Your task to perform on an android device: toggle location history Image 0: 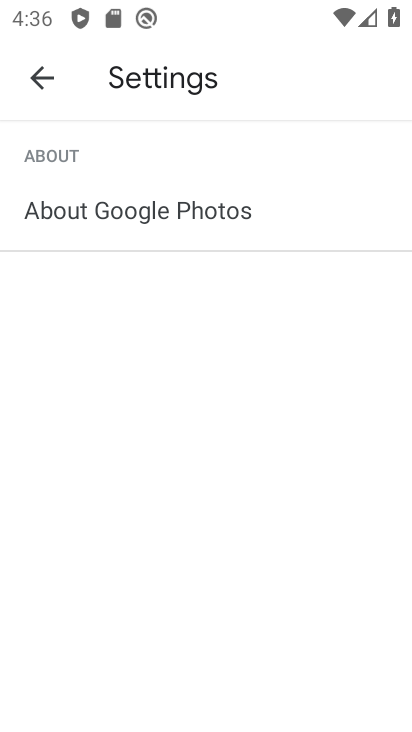
Step 0: press home button
Your task to perform on an android device: toggle location history Image 1: 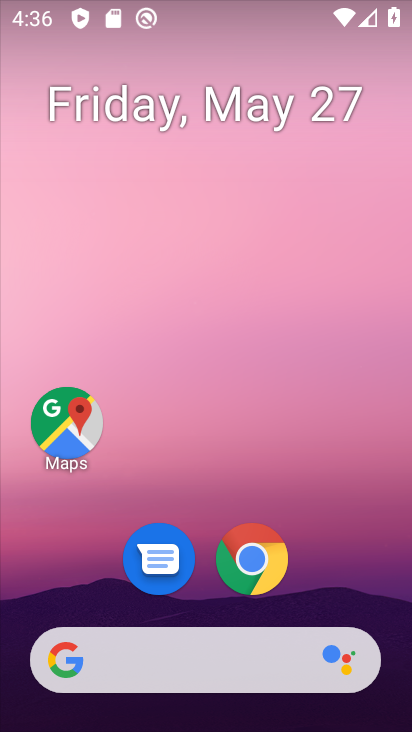
Step 1: drag from (312, 576) to (299, 62)
Your task to perform on an android device: toggle location history Image 2: 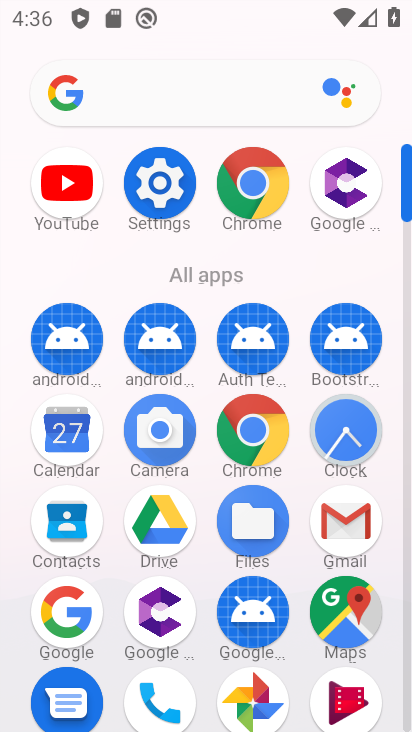
Step 2: click (158, 186)
Your task to perform on an android device: toggle location history Image 3: 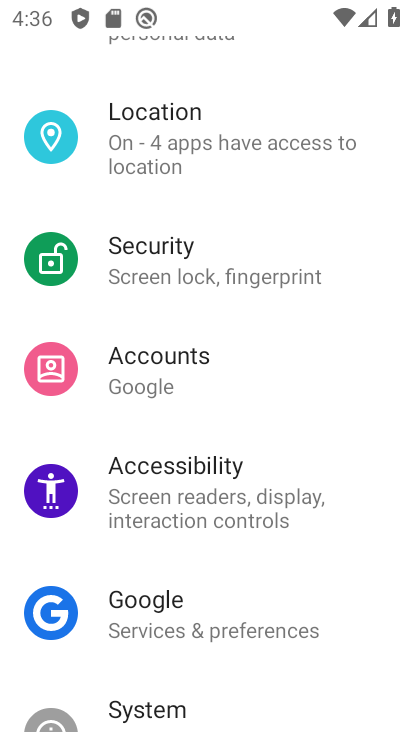
Step 3: press home button
Your task to perform on an android device: toggle location history Image 4: 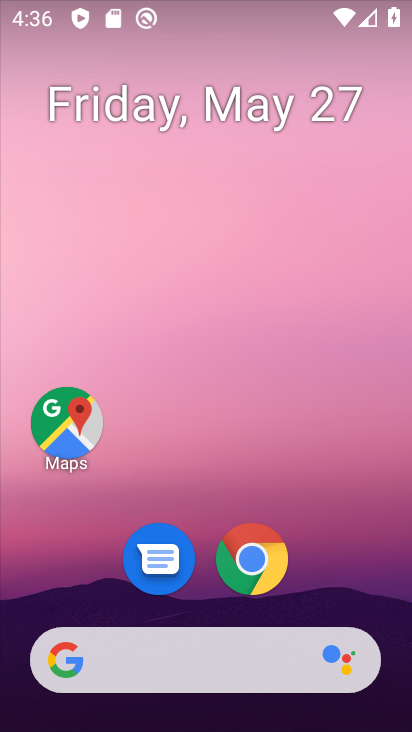
Step 4: click (43, 408)
Your task to perform on an android device: toggle location history Image 5: 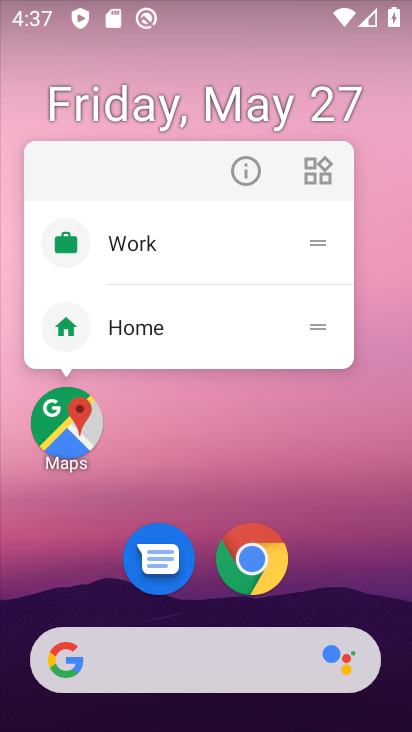
Step 5: click (306, 455)
Your task to perform on an android device: toggle location history Image 6: 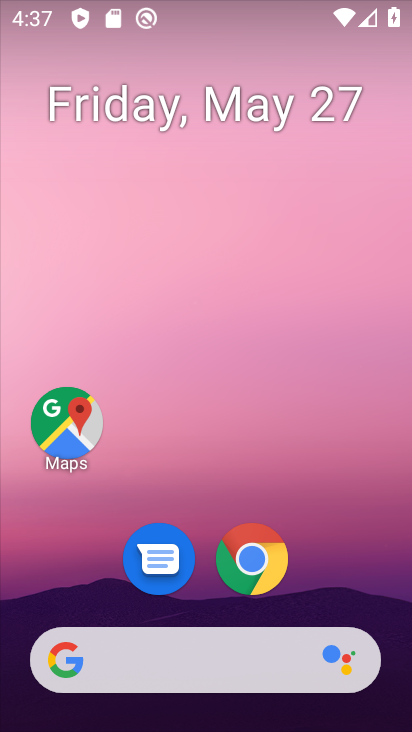
Step 6: drag from (327, 553) to (295, 74)
Your task to perform on an android device: toggle location history Image 7: 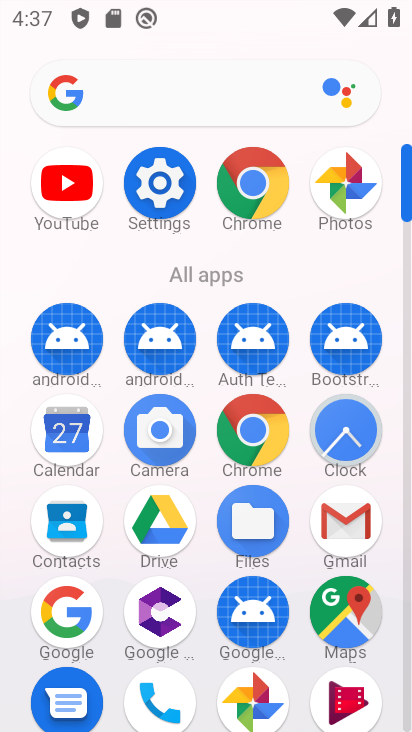
Step 7: click (335, 616)
Your task to perform on an android device: toggle location history Image 8: 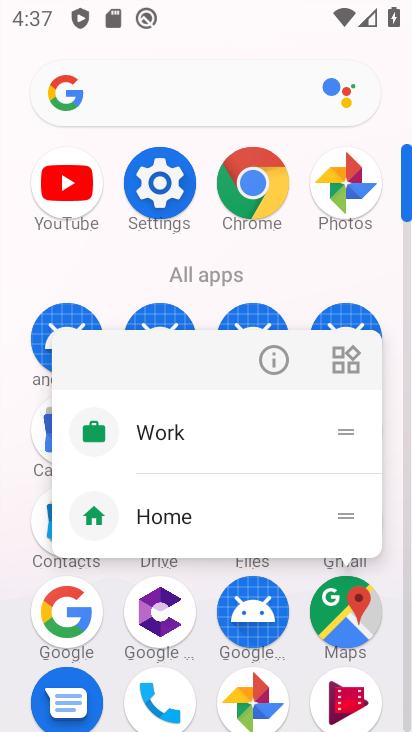
Step 8: click (340, 595)
Your task to perform on an android device: toggle location history Image 9: 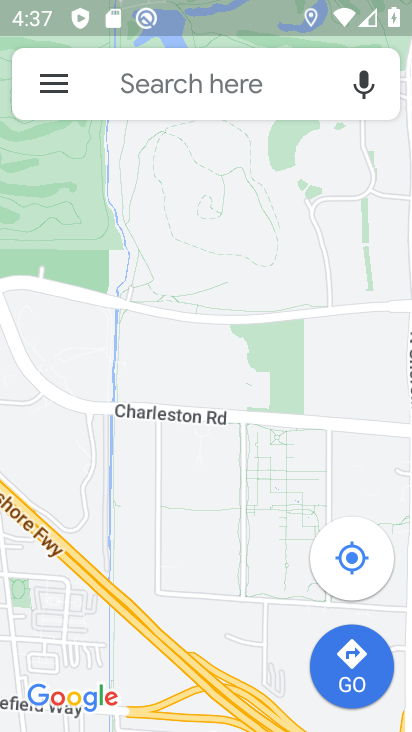
Step 9: click (51, 88)
Your task to perform on an android device: toggle location history Image 10: 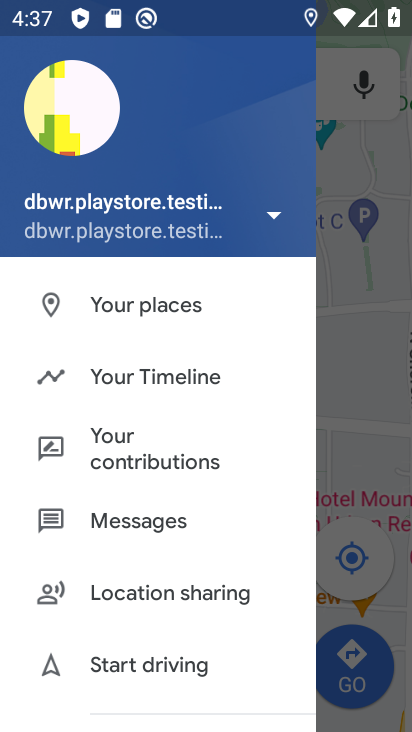
Step 10: click (153, 380)
Your task to perform on an android device: toggle location history Image 11: 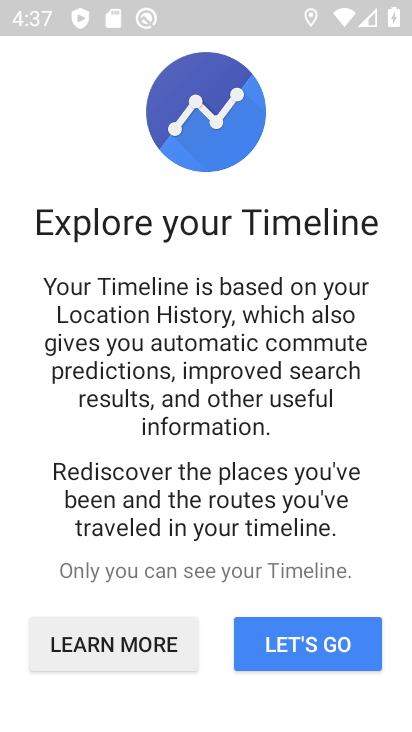
Step 11: click (307, 650)
Your task to perform on an android device: toggle location history Image 12: 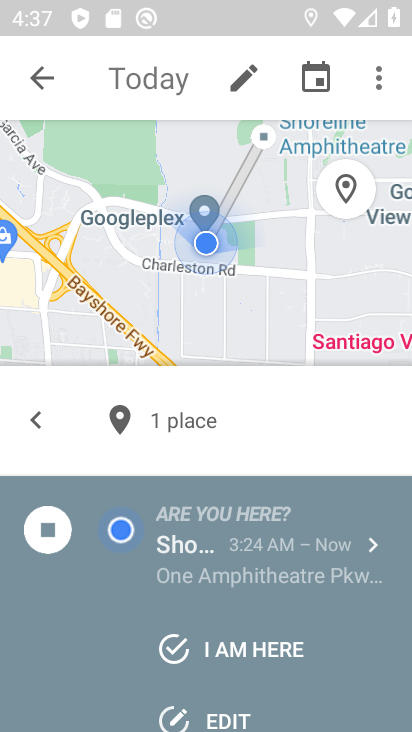
Step 12: drag from (150, 287) to (163, 115)
Your task to perform on an android device: toggle location history Image 13: 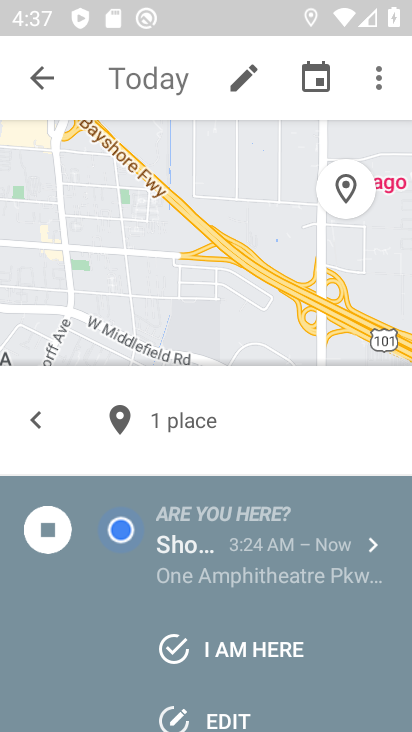
Step 13: click (374, 79)
Your task to perform on an android device: toggle location history Image 14: 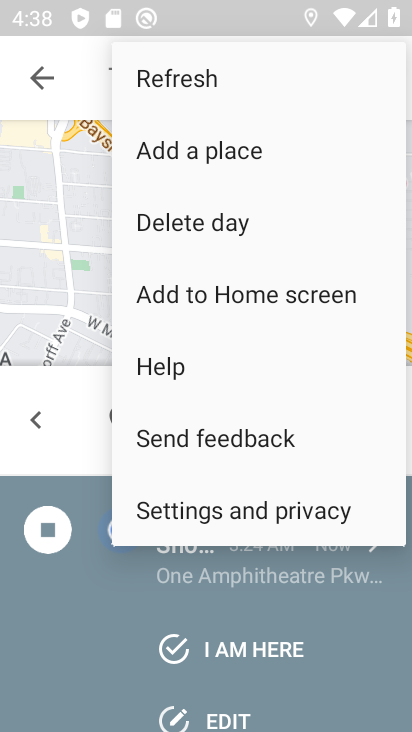
Step 14: click (254, 514)
Your task to perform on an android device: toggle location history Image 15: 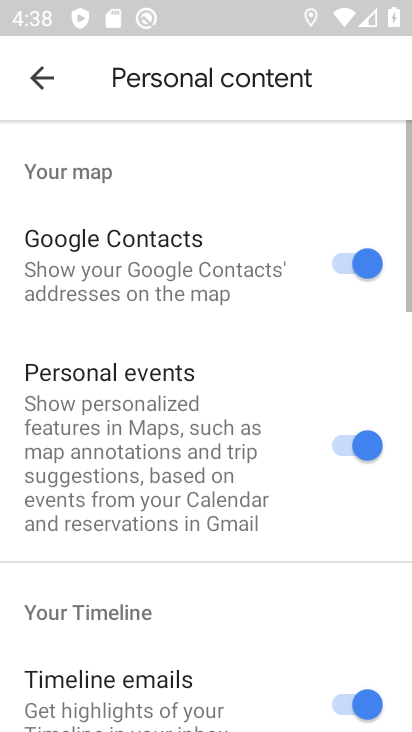
Step 15: drag from (246, 626) to (206, 171)
Your task to perform on an android device: toggle location history Image 16: 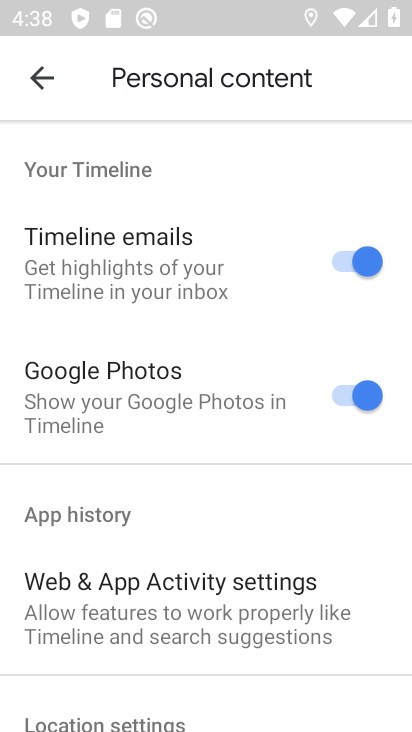
Step 16: drag from (223, 619) to (231, 235)
Your task to perform on an android device: toggle location history Image 17: 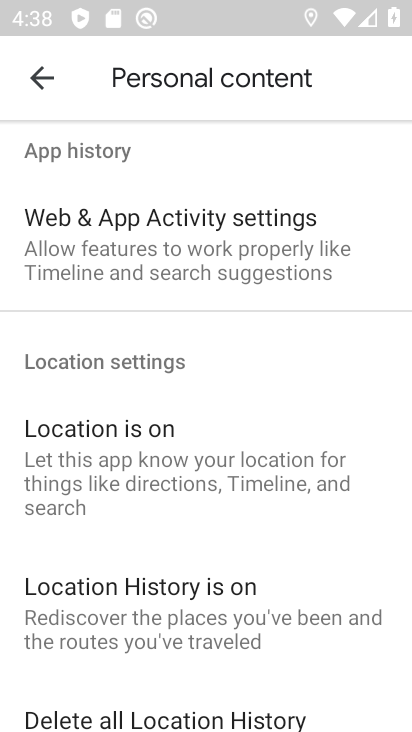
Step 17: click (159, 579)
Your task to perform on an android device: toggle location history Image 18: 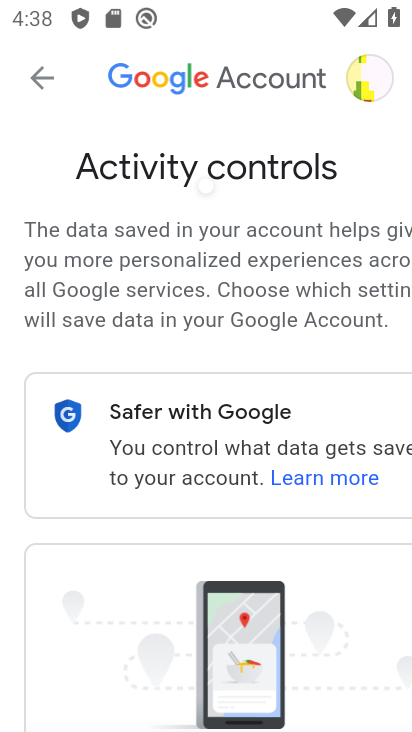
Step 18: drag from (156, 579) to (232, 198)
Your task to perform on an android device: toggle location history Image 19: 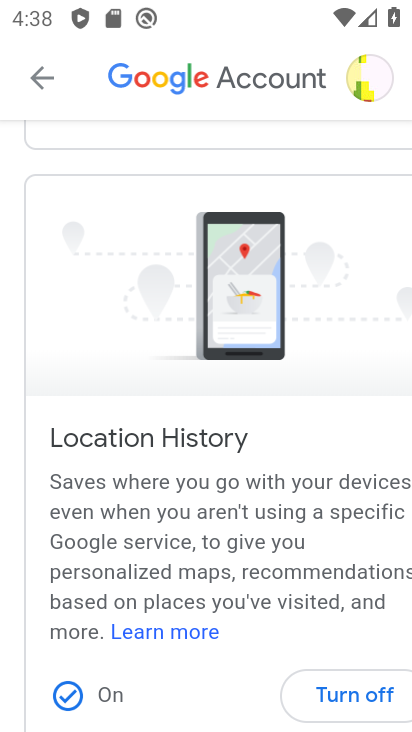
Step 19: drag from (260, 637) to (283, 288)
Your task to perform on an android device: toggle location history Image 20: 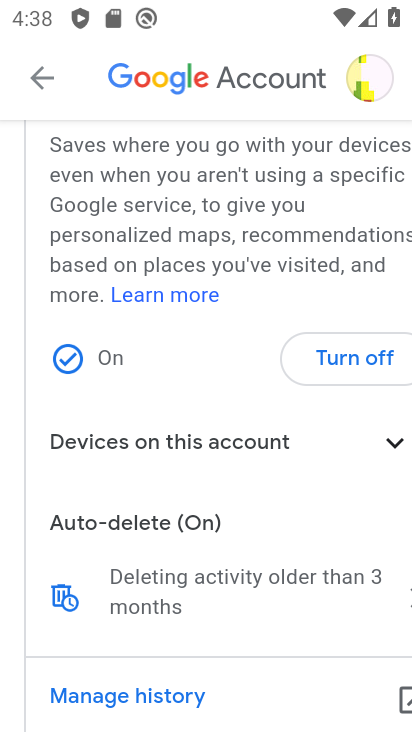
Step 20: click (277, 176)
Your task to perform on an android device: toggle location history Image 21: 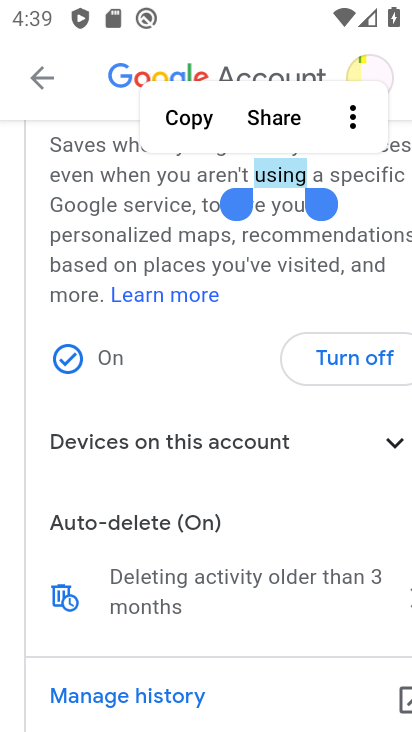
Step 21: click (355, 290)
Your task to perform on an android device: toggle location history Image 22: 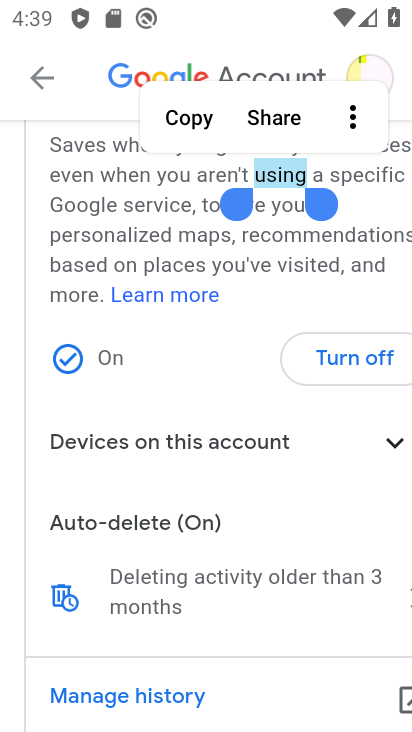
Step 22: click (337, 366)
Your task to perform on an android device: toggle location history Image 23: 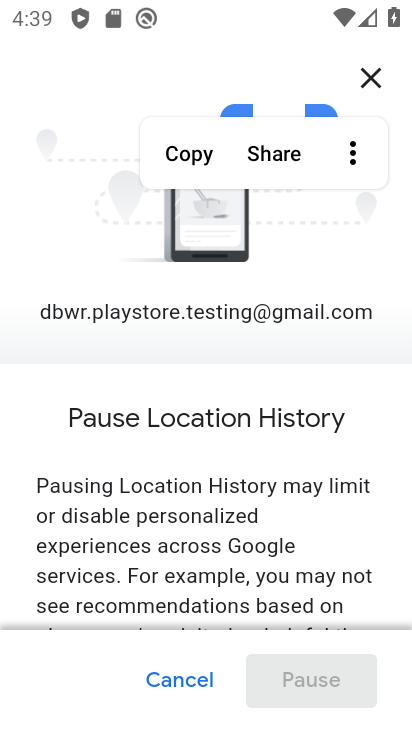
Step 23: drag from (298, 444) to (358, 222)
Your task to perform on an android device: toggle location history Image 24: 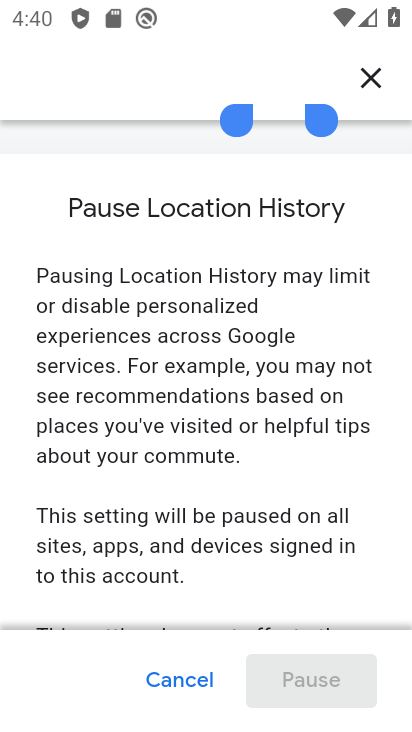
Step 24: drag from (311, 516) to (377, 156)
Your task to perform on an android device: toggle location history Image 25: 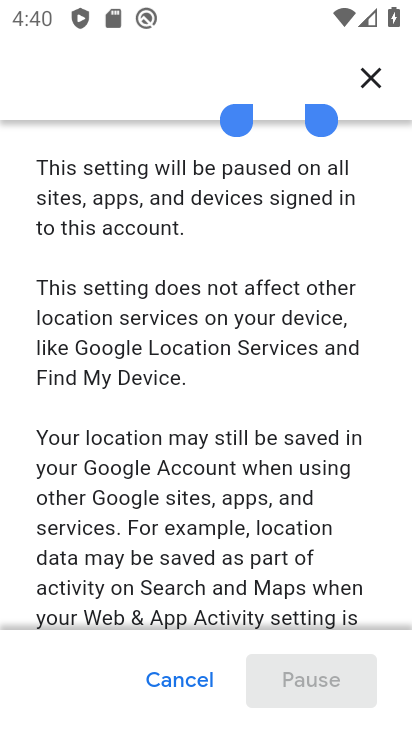
Step 25: drag from (317, 526) to (371, 204)
Your task to perform on an android device: toggle location history Image 26: 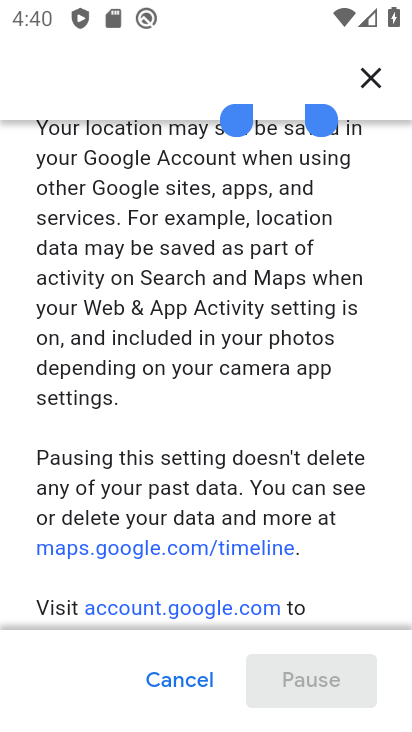
Step 26: drag from (295, 529) to (354, 260)
Your task to perform on an android device: toggle location history Image 27: 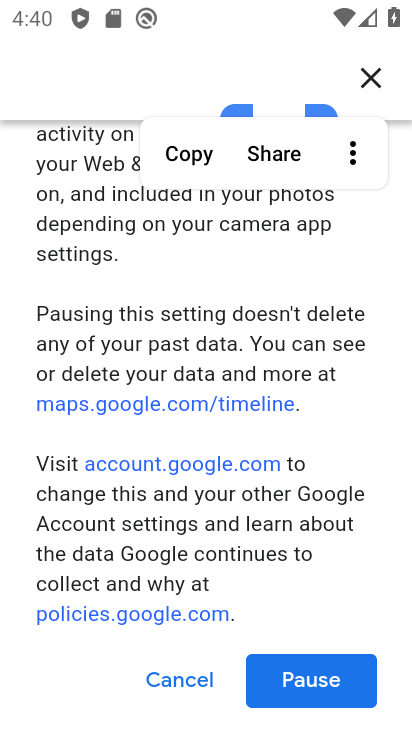
Step 27: click (344, 681)
Your task to perform on an android device: toggle location history Image 28: 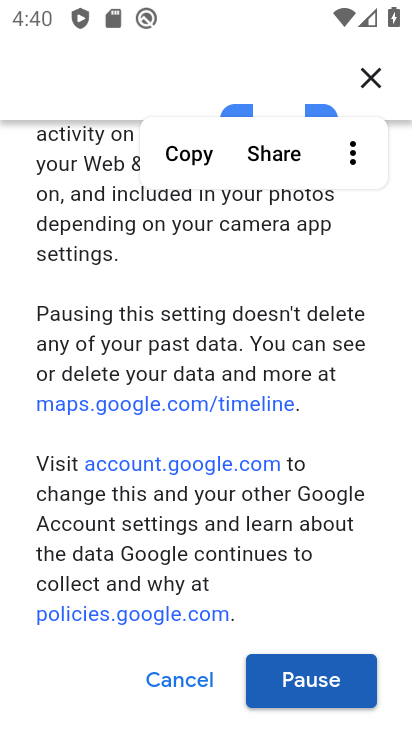
Step 28: click (344, 681)
Your task to perform on an android device: toggle location history Image 29: 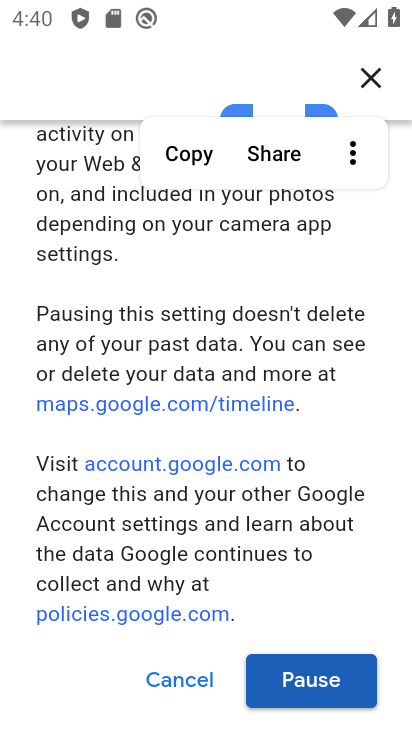
Step 29: click (344, 678)
Your task to perform on an android device: toggle location history Image 30: 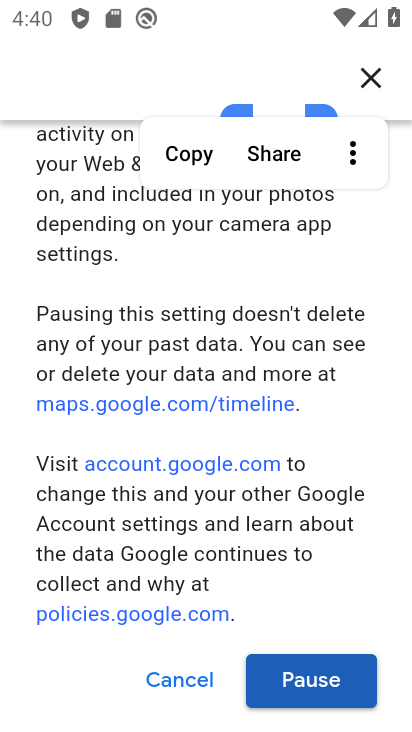
Step 30: click (344, 678)
Your task to perform on an android device: toggle location history Image 31: 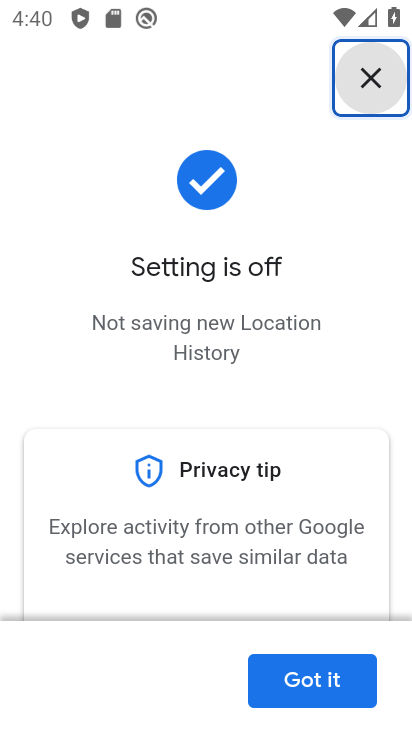
Step 31: click (338, 679)
Your task to perform on an android device: toggle location history Image 32: 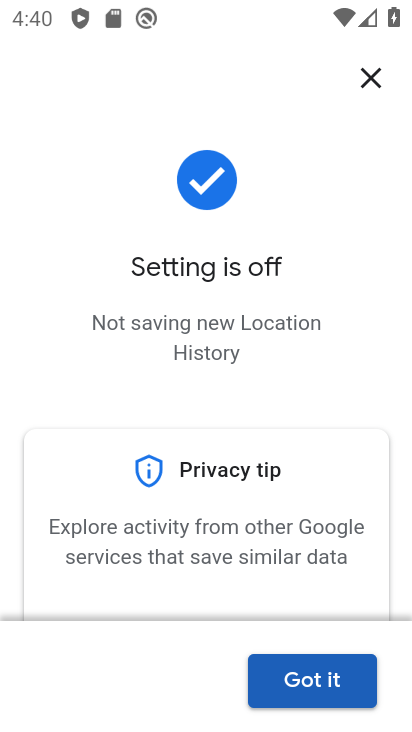
Step 32: click (313, 674)
Your task to perform on an android device: toggle location history Image 33: 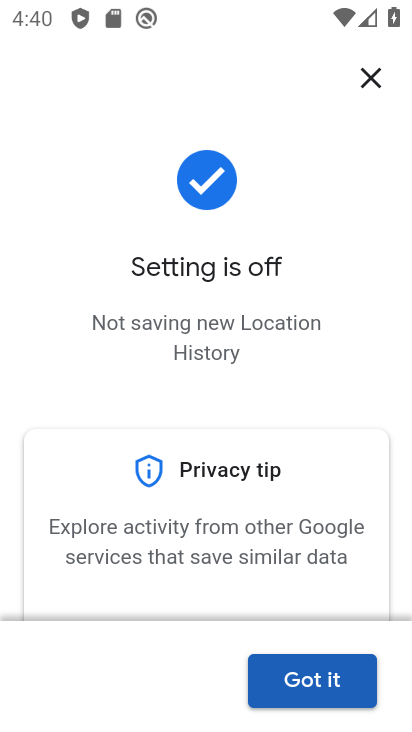
Step 33: click (313, 674)
Your task to perform on an android device: toggle location history Image 34: 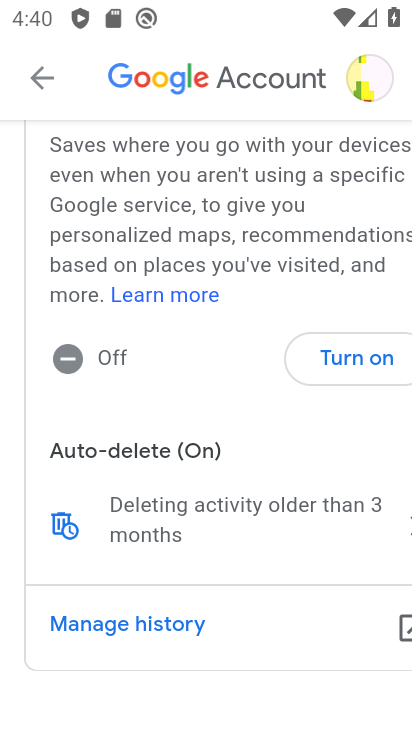
Step 34: task complete